Your task to perform on an android device: set the stopwatch Image 0: 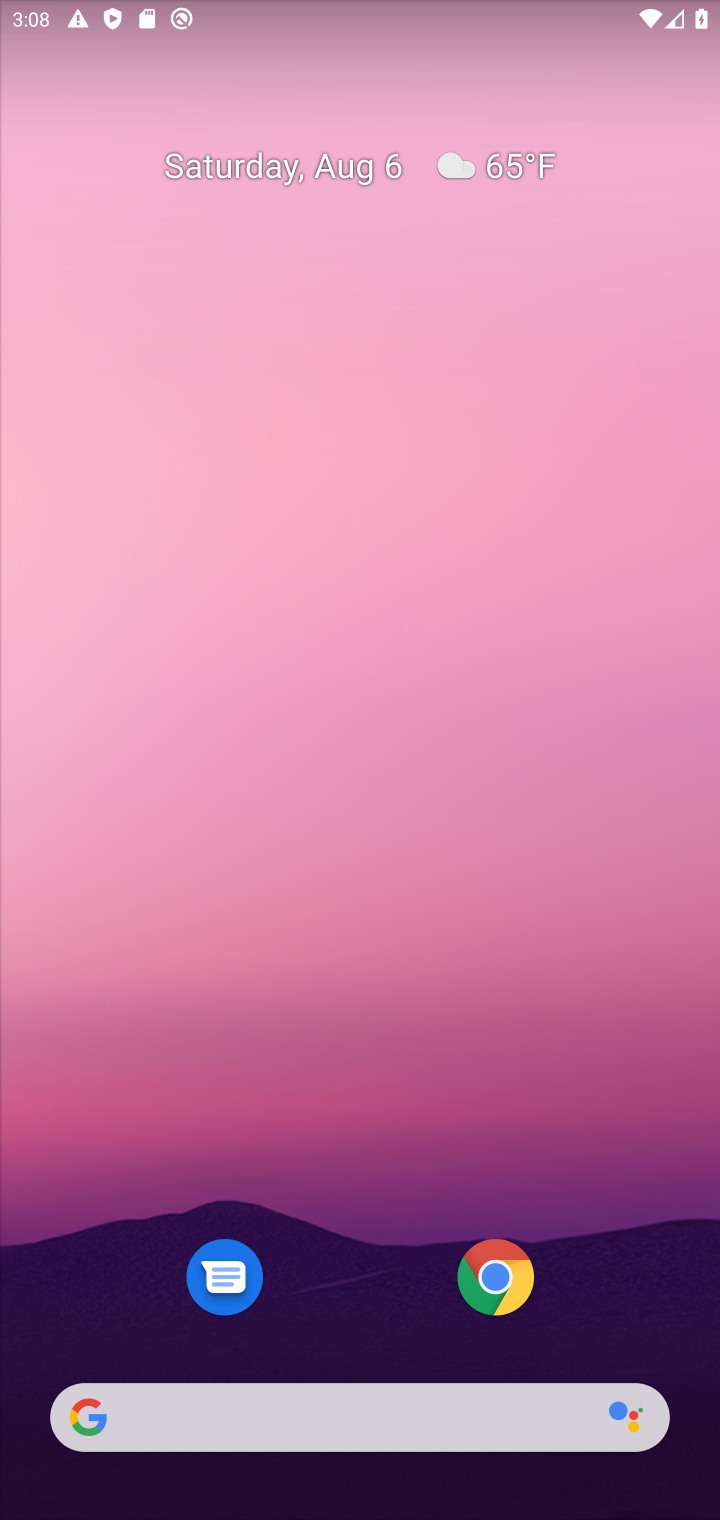
Step 0: drag from (330, 728) to (392, 299)
Your task to perform on an android device: set the stopwatch Image 1: 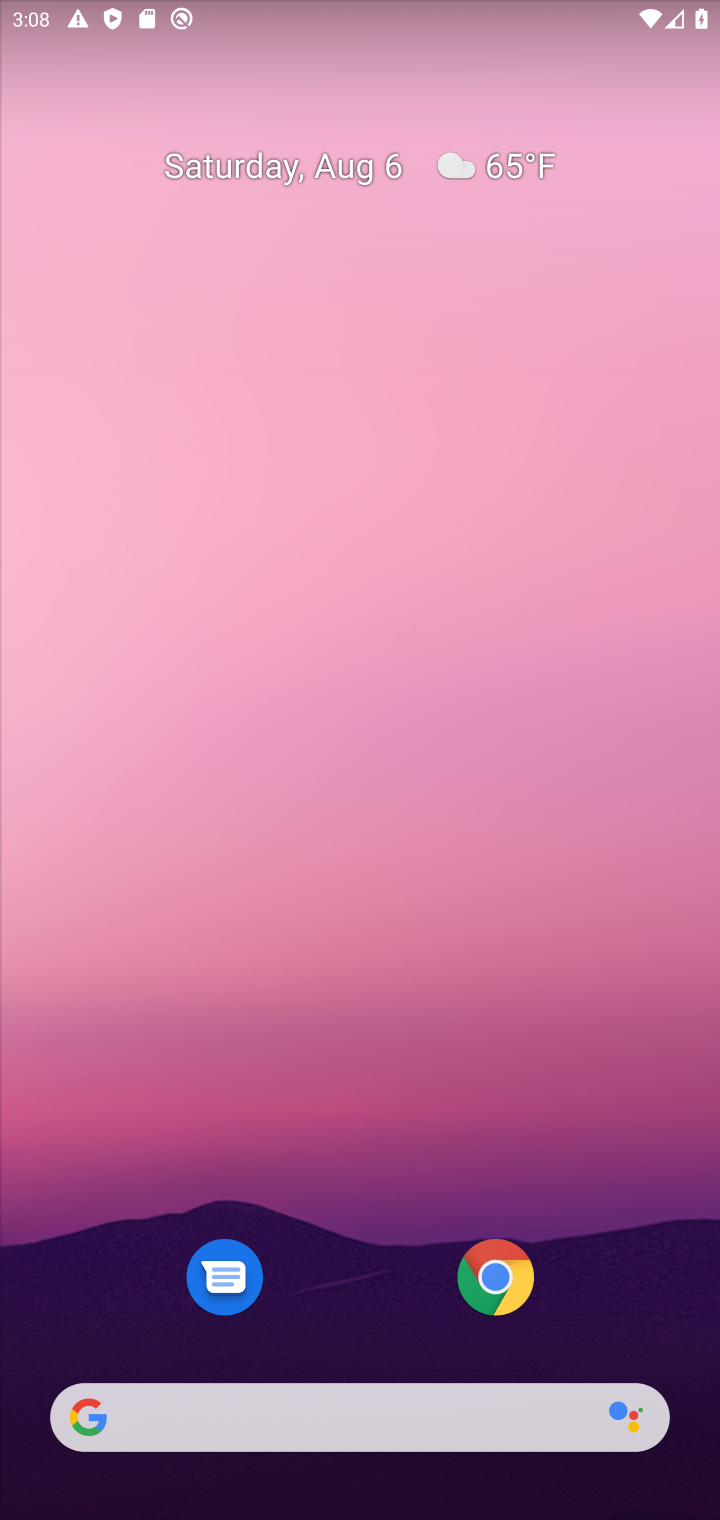
Step 1: drag from (464, 1411) to (540, 43)
Your task to perform on an android device: set the stopwatch Image 2: 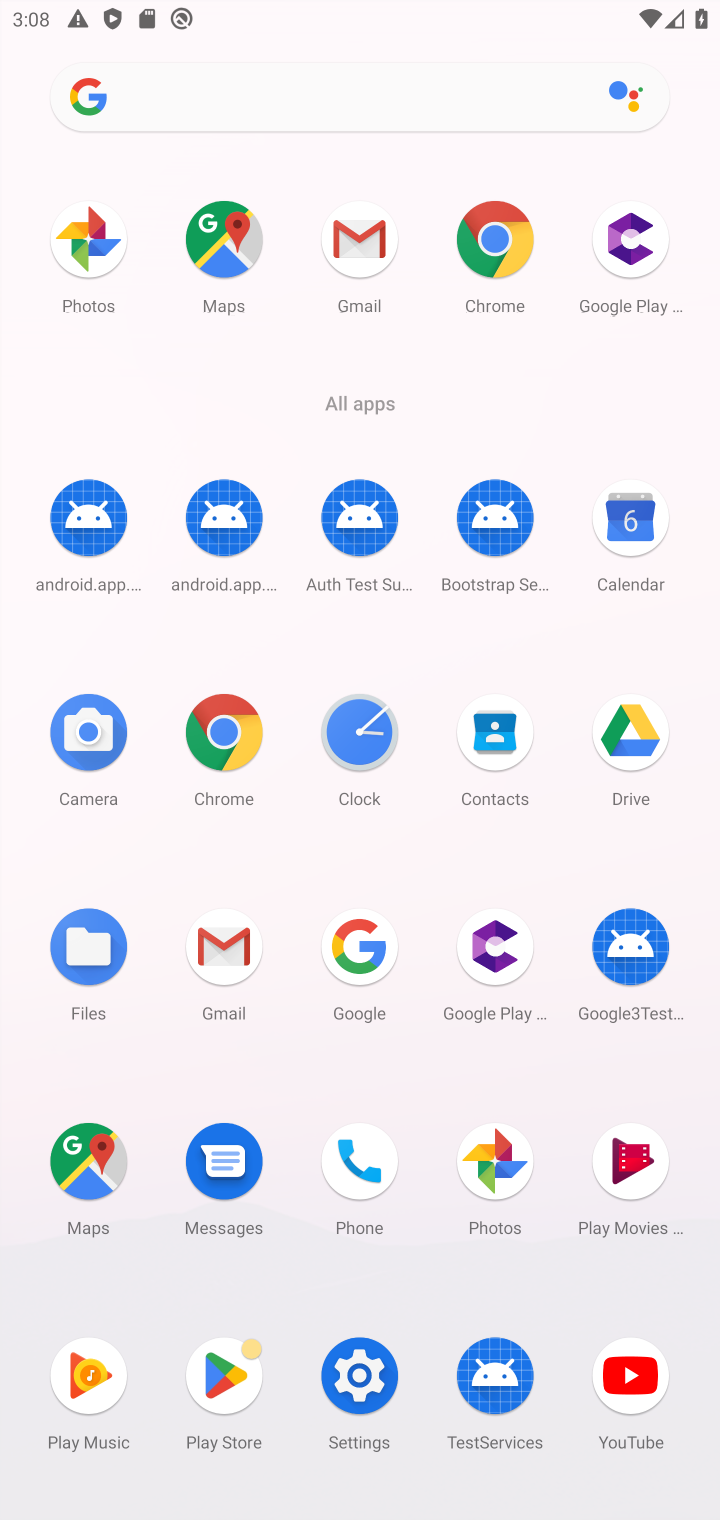
Step 2: click (356, 719)
Your task to perform on an android device: set the stopwatch Image 3: 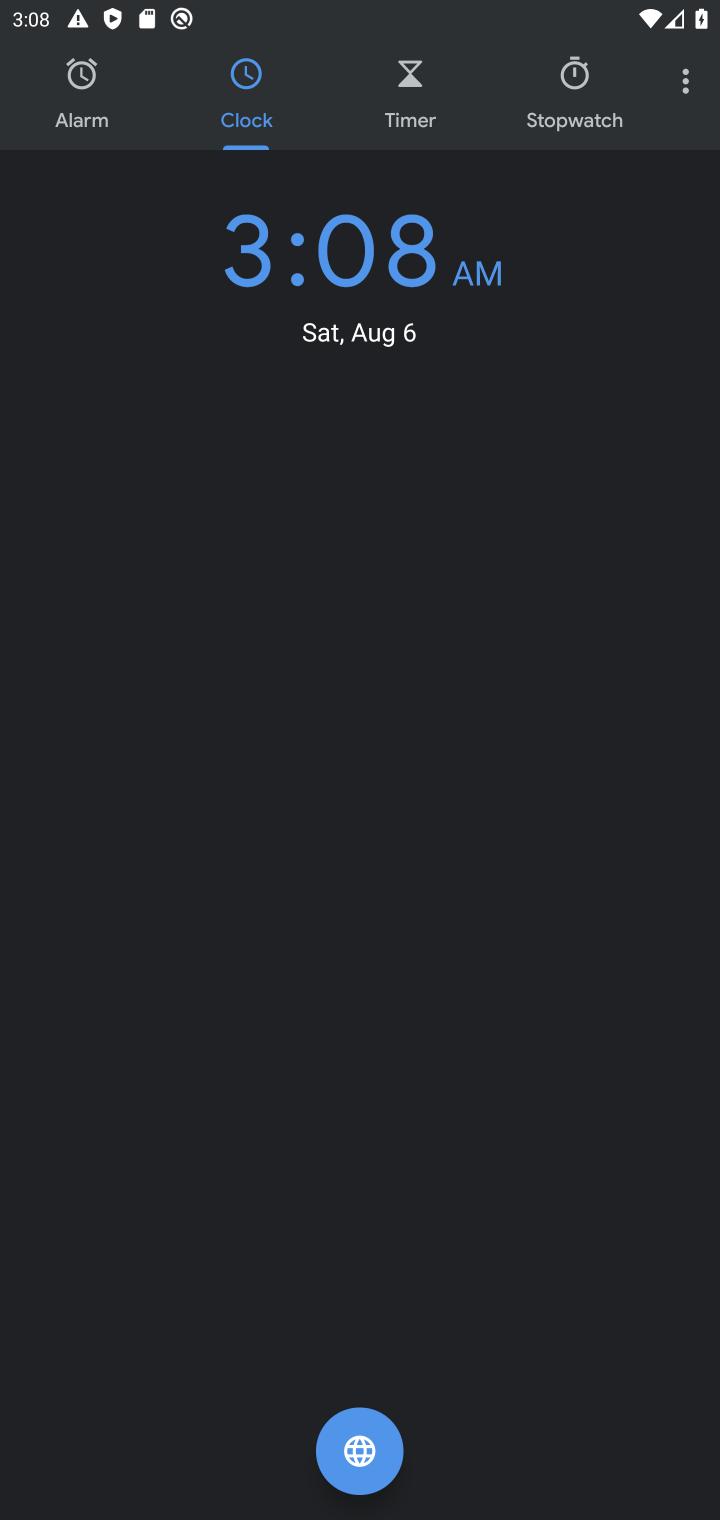
Step 3: click (597, 106)
Your task to perform on an android device: set the stopwatch Image 4: 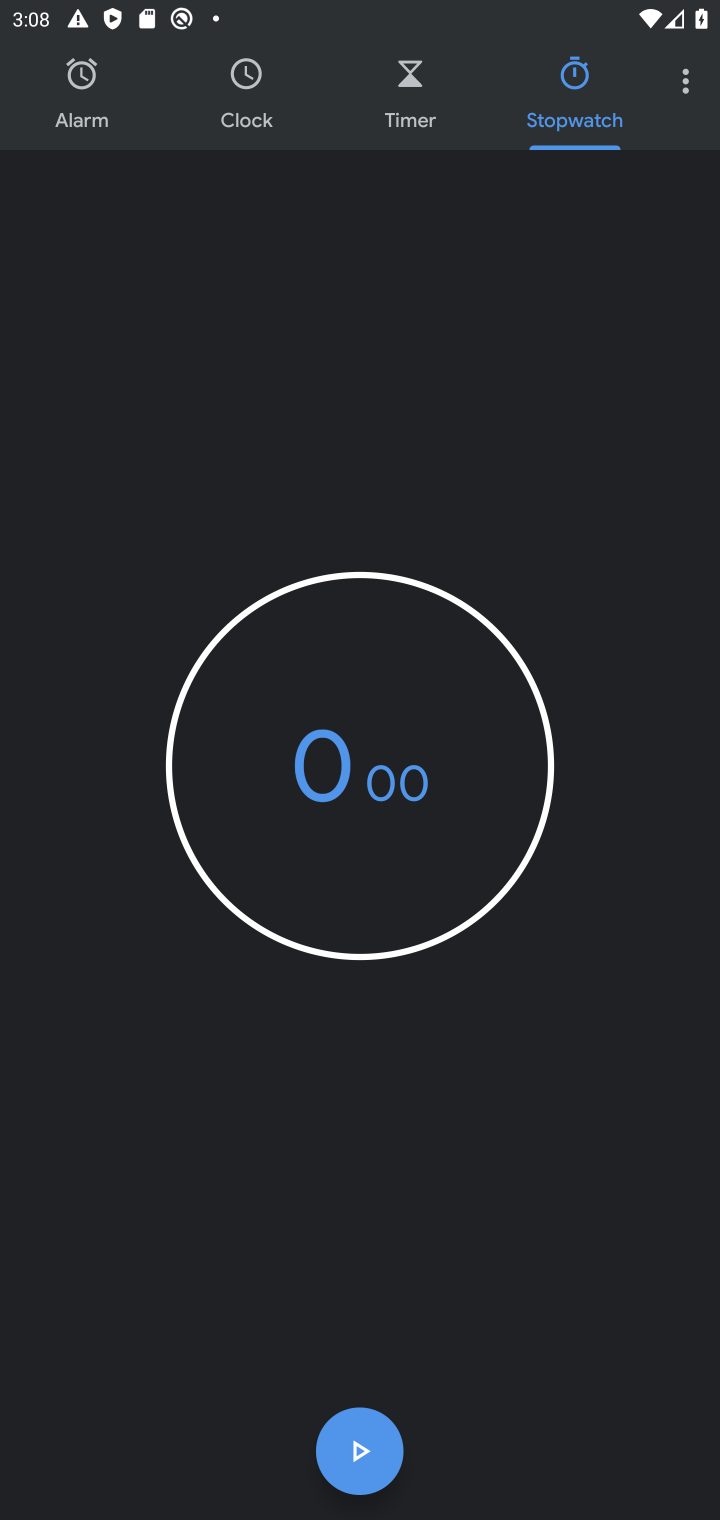
Step 4: click (363, 1429)
Your task to perform on an android device: set the stopwatch Image 5: 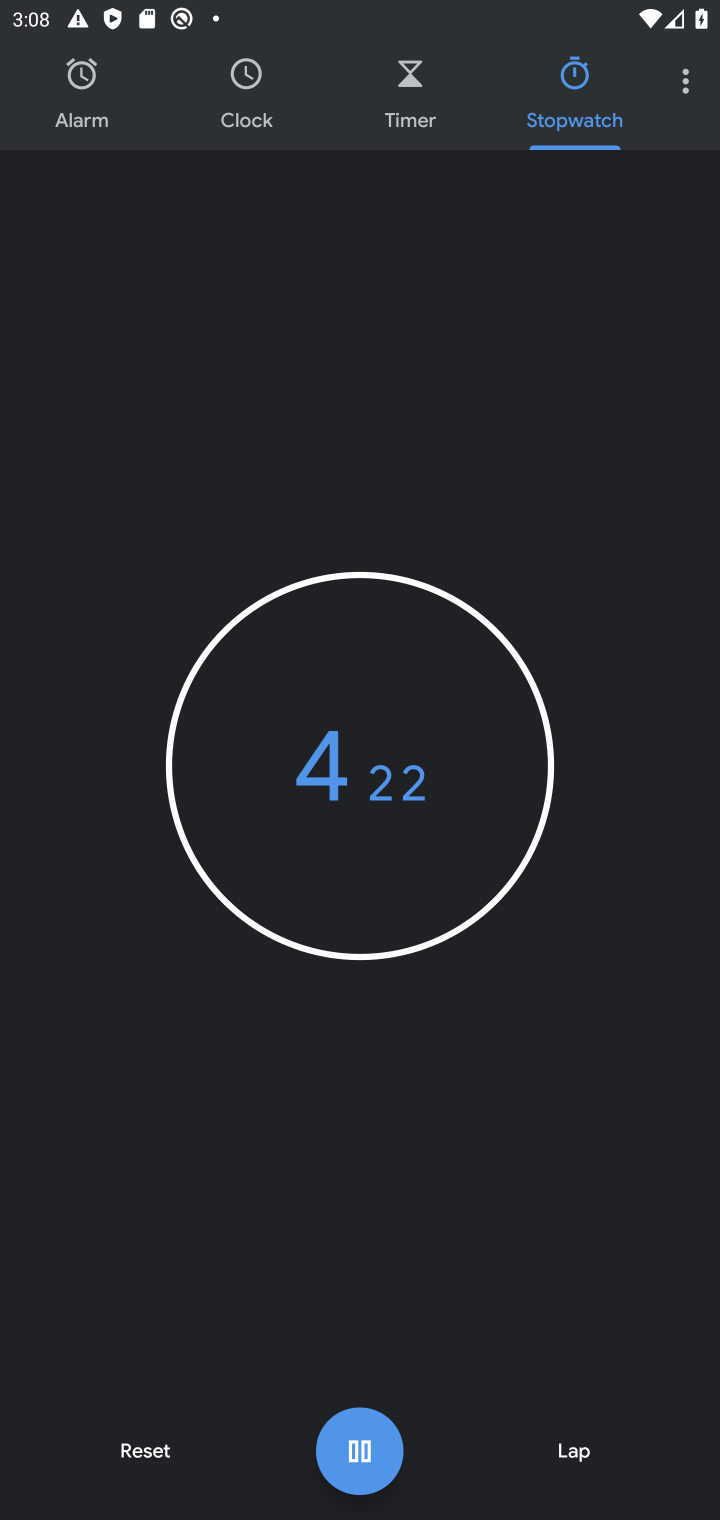
Step 5: task complete